Your task to perform on an android device: turn off smart reply in the gmail app Image 0: 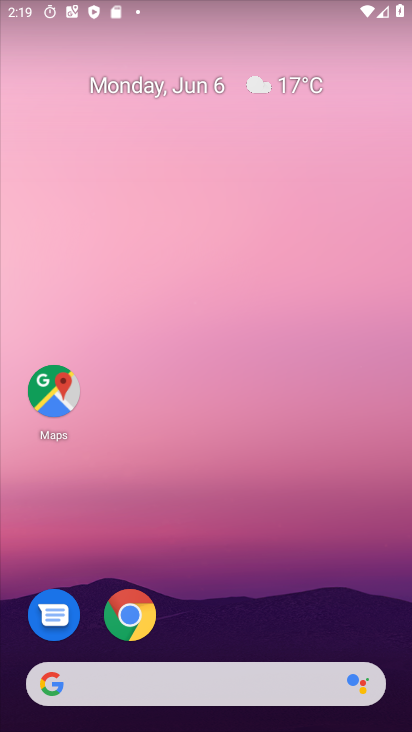
Step 0: drag from (217, 463) to (299, 147)
Your task to perform on an android device: turn off smart reply in the gmail app Image 1: 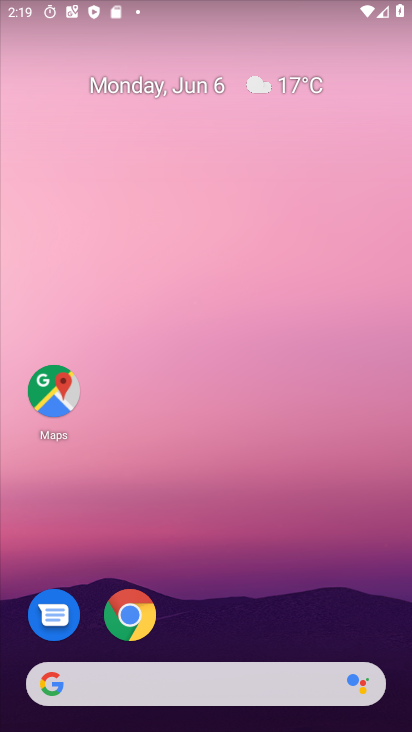
Step 1: drag from (229, 598) to (209, 108)
Your task to perform on an android device: turn off smart reply in the gmail app Image 2: 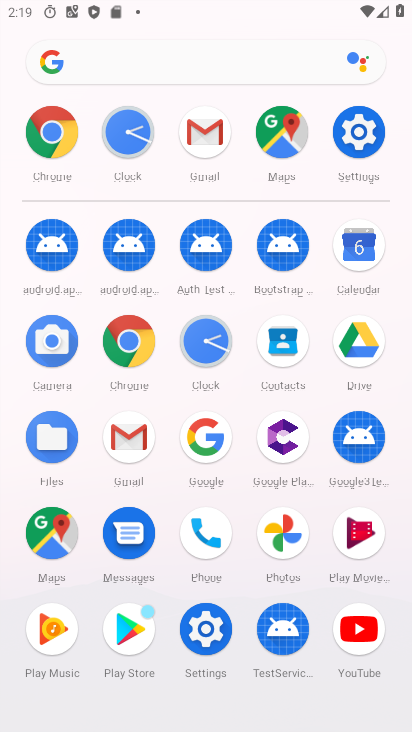
Step 2: click (147, 433)
Your task to perform on an android device: turn off smart reply in the gmail app Image 3: 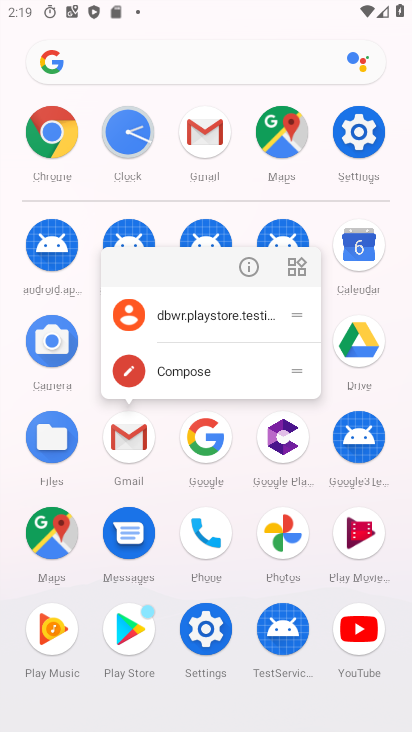
Step 3: click (254, 261)
Your task to perform on an android device: turn off smart reply in the gmail app Image 4: 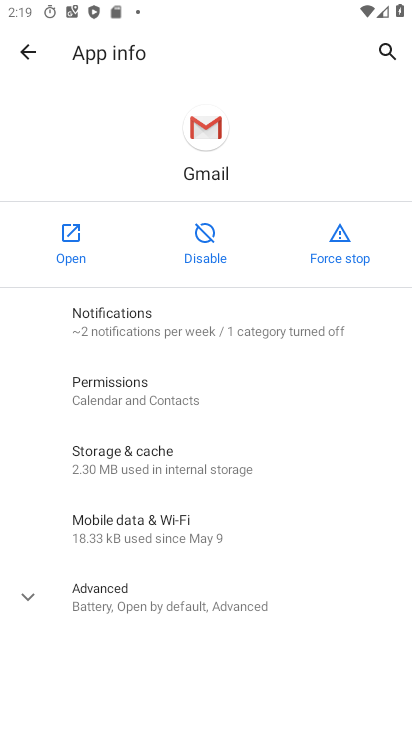
Step 4: click (78, 240)
Your task to perform on an android device: turn off smart reply in the gmail app Image 5: 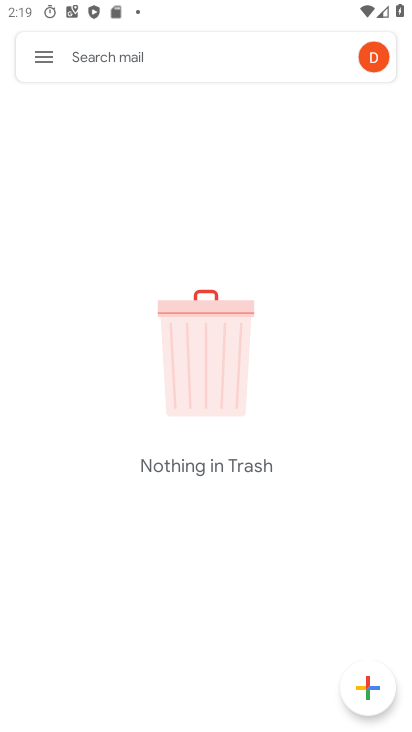
Step 5: click (48, 59)
Your task to perform on an android device: turn off smart reply in the gmail app Image 6: 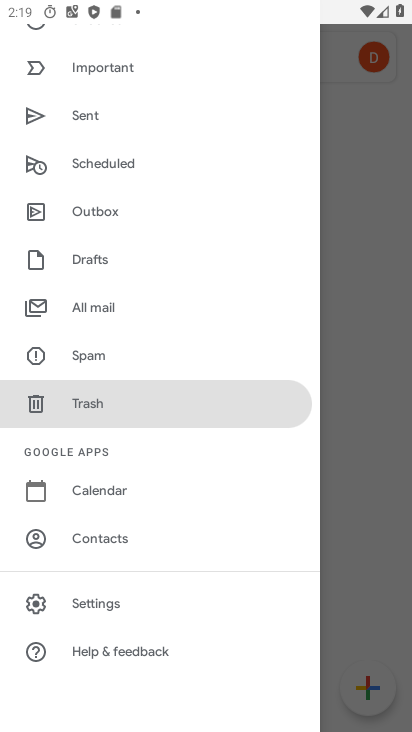
Step 6: click (126, 598)
Your task to perform on an android device: turn off smart reply in the gmail app Image 7: 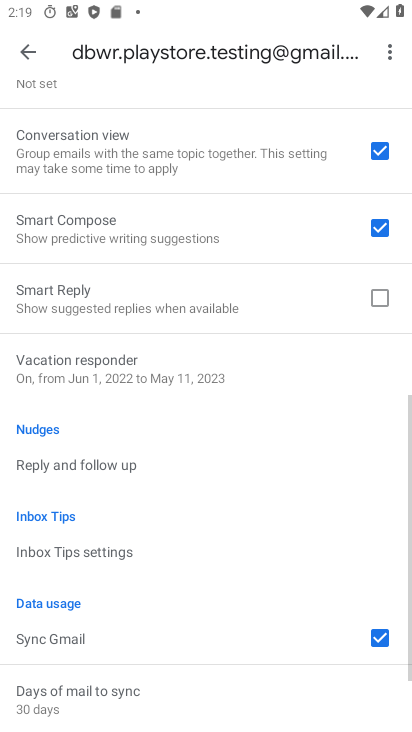
Step 7: drag from (222, 468) to (293, 159)
Your task to perform on an android device: turn off smart reply in the gmail app Image 8: 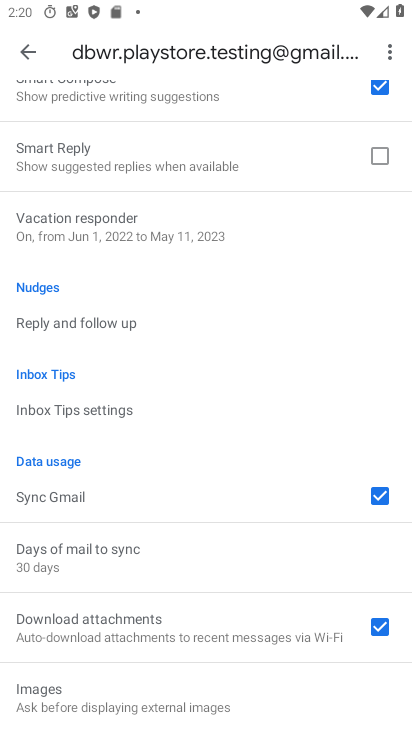
Step 8: drag from (239, 179) to (298, 405)
Your task to perform on an android device: turn off smart reply in the gmail app Image 9: 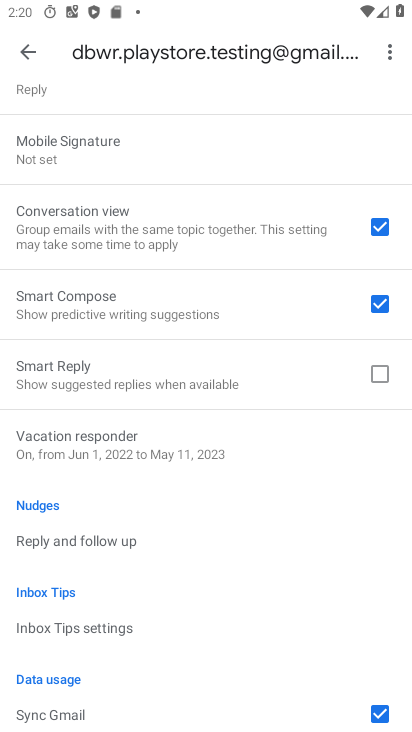
Step 9: click (214, 369)
Your task to perform on an android device: turn off smart reply in the gmail app Image 10: 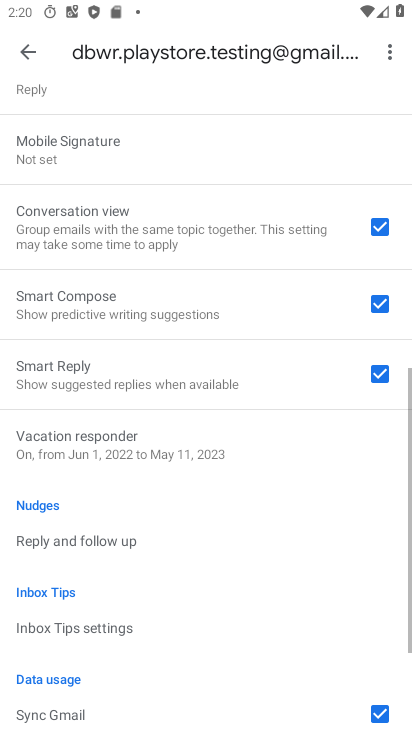
Step 10: click (332, 370)
Your task to perform on an android device: turn off smart reply in the gmail app Image 11: 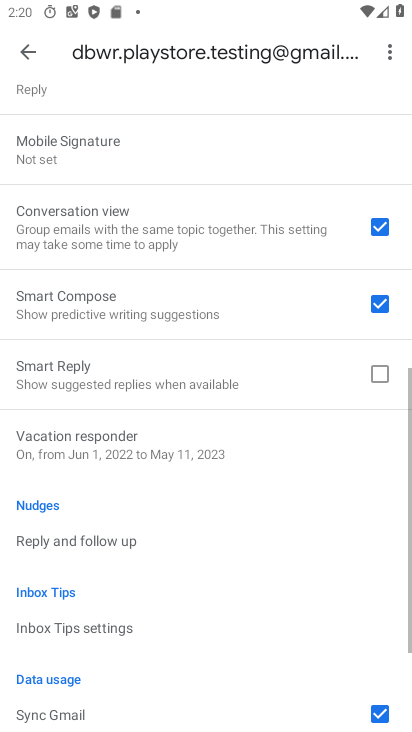
Step 11: task complete